Your task to perform on an android device: Go to Yahoo.com Image 0: 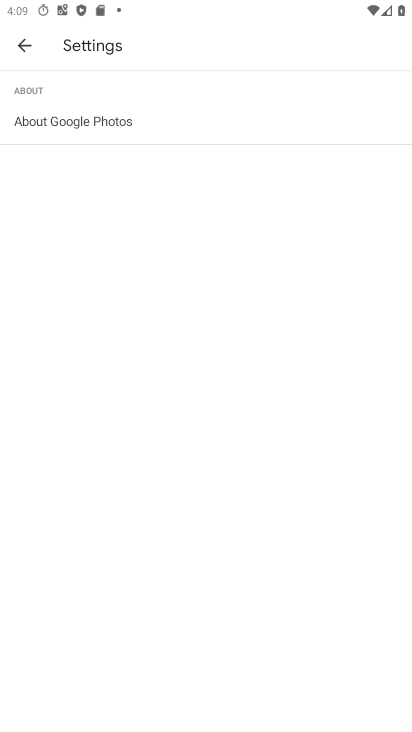
Step 0: press home button
Your task to perform on an android device: Go to Yahoo.com Image 1: 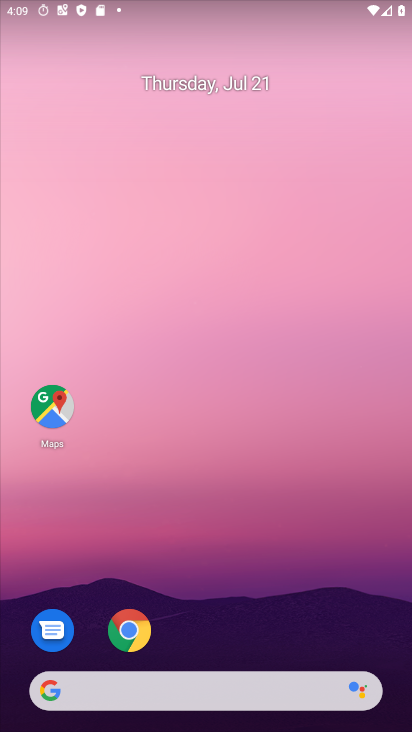
Step 1: click (129, 628)
Your task to perform on an android device: Go to Yahoo.com Image 2: 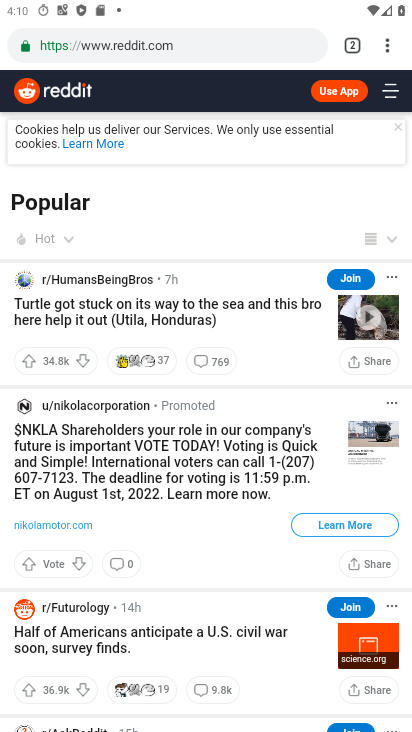
Step 2: click (212, 47)
Your task to perform on an android device: Go to Yahoo.com Image 3: 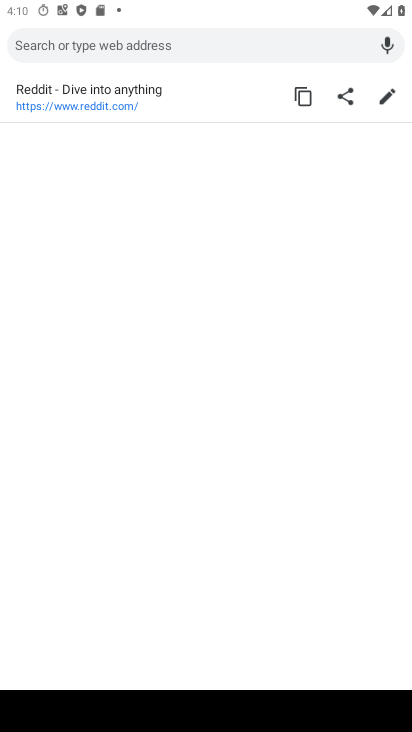
Step 3: type "Yahoo.com"
Your task to perform on an android device: Go to Yahoo.com Image 4: 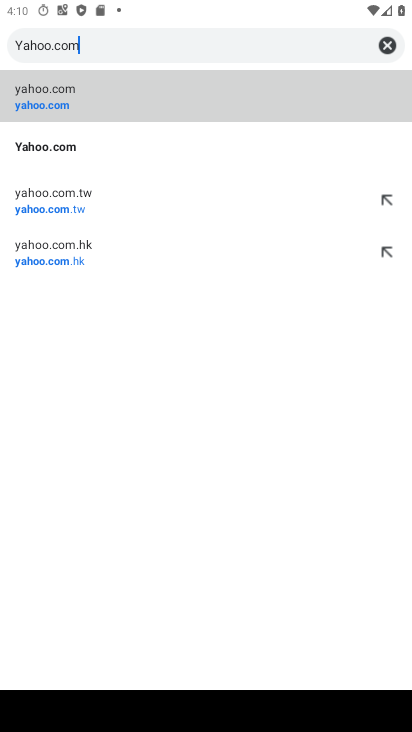
Step 4: click (54, 147)
Your task to perform on an android device: Go to Yahoo.com Image 5: 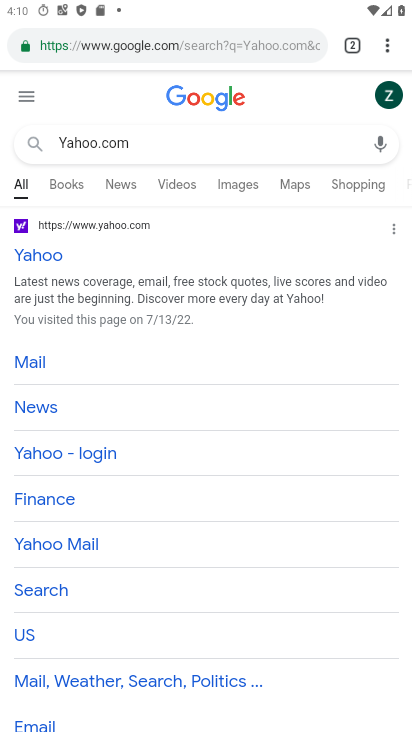
Step 5: click (40, 252)
Your task to perform on an android device: Go to Yahoo.com Image 6: 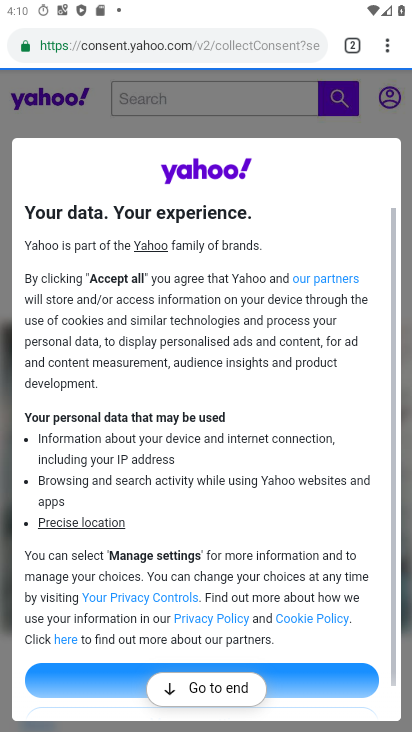
Step 6: click (206, 685)
Your task to perform on an android device: Go to Yahoo.com Image 7: 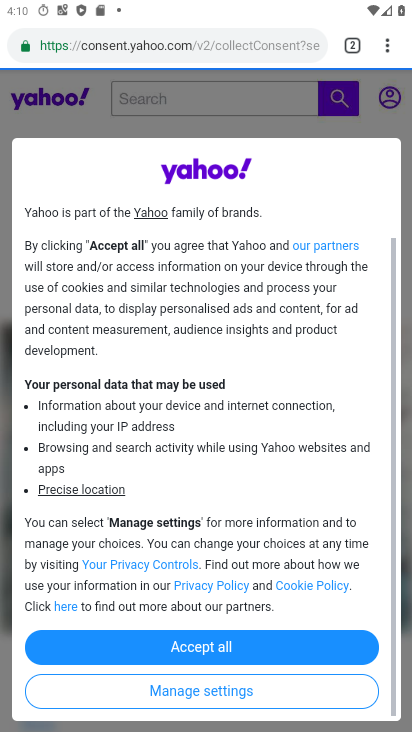
Step 7: click (197, 645)
Your task to perform on an android device: Go to Yahoo.com Image 8: 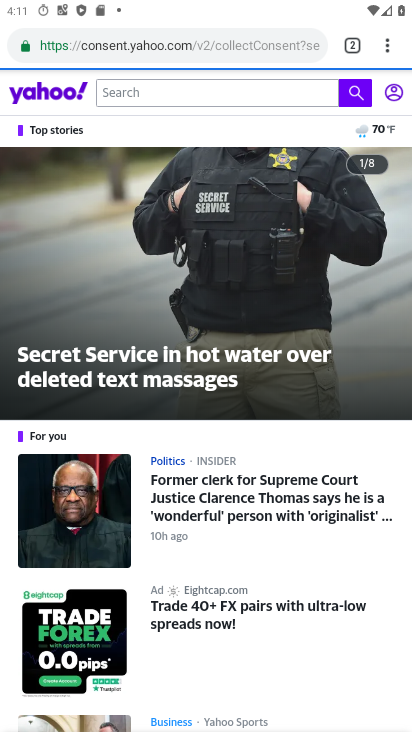
Step 8: task complete